Your task to perform on an android device: turn on airplane mode Image 0: 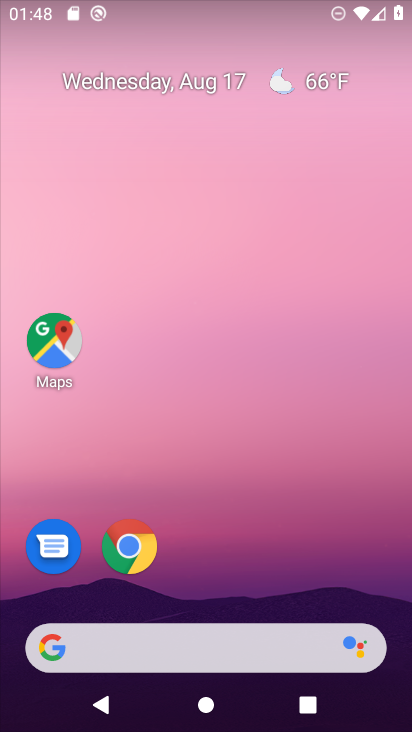
Step 0: drag from (191, 588) to (220, 2)
Your task to perform on an android device: turn on airplane mode Image 1: 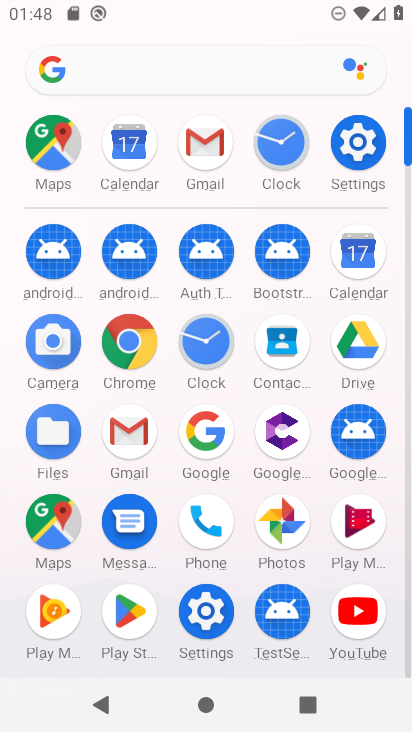
Step 1: click (358, 140)
Your task to perform on an android device: turn on airplane mode Image 2: 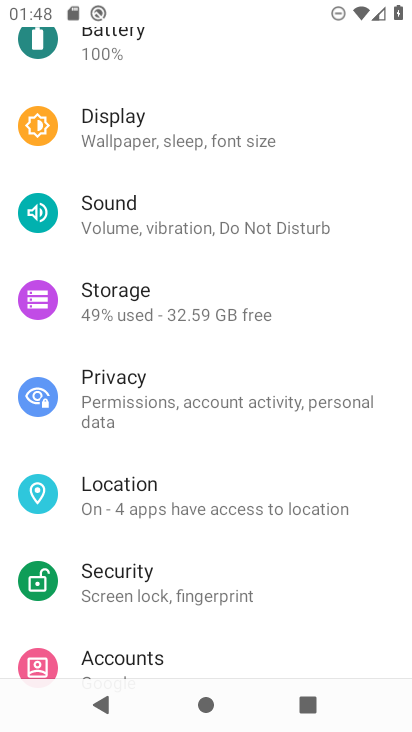
Step 2: drag from (181, 161) to (152, 429)
Your task to perform on an android device: turn on airplane mode Image 3: 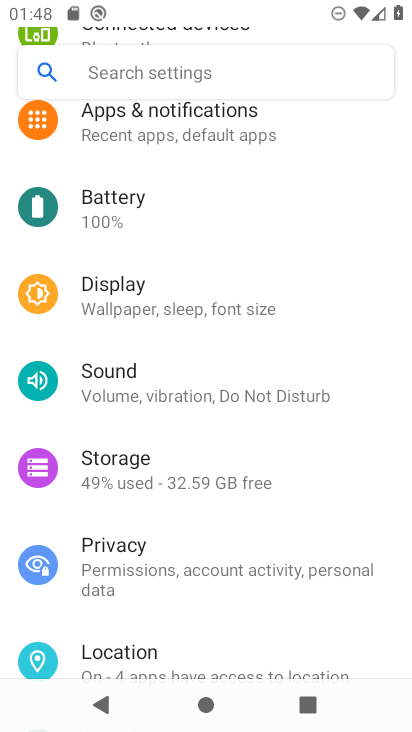
Step 3: drag from (195, 183) to (202, 488)
Your task to perform on an android device: turn on airplane mode Image 4: 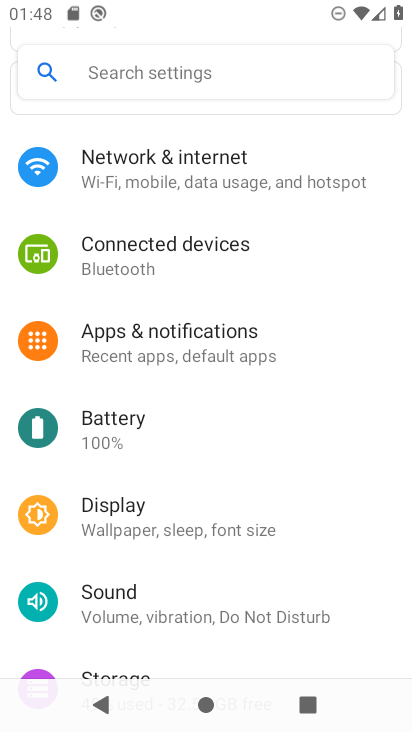
Step 4: click (196, 152)
Your task to perform on an android device: turn on airplane mode Image 5: 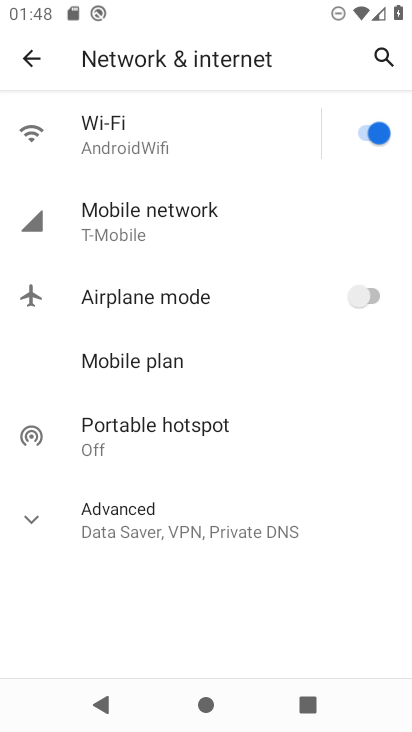
Step 5: click (363, 289)
Your task to perform on an android device: turn on airplane mode Image 6: 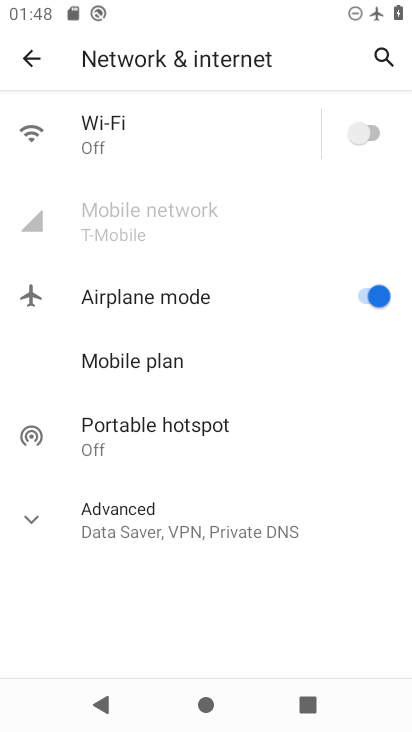
Step 6: task complete